Your task to perform on an android device: set the stopwatch Image 0: 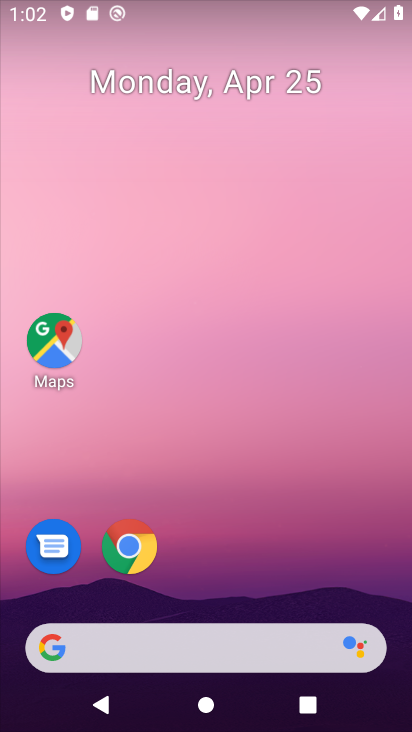
Step 0: drag from (205, 612) to (385, 24)
Your task to perform on an android device: set the stopwatch Image 1: 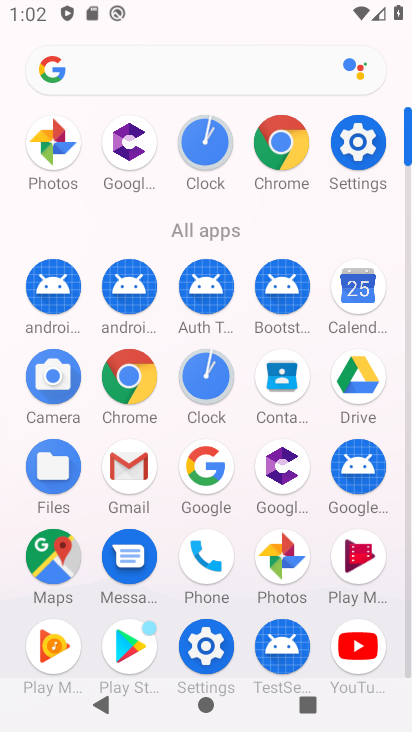
Step 1: click (214, 375)
Your task to perform on an android device: set the stopwatch Image 2: 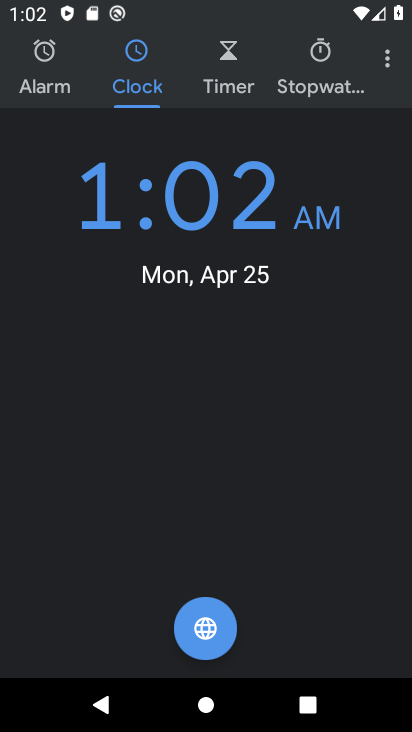
Step 2: click (336, 73)
Your task to perform on an android device: set the stopwatch Image 3: 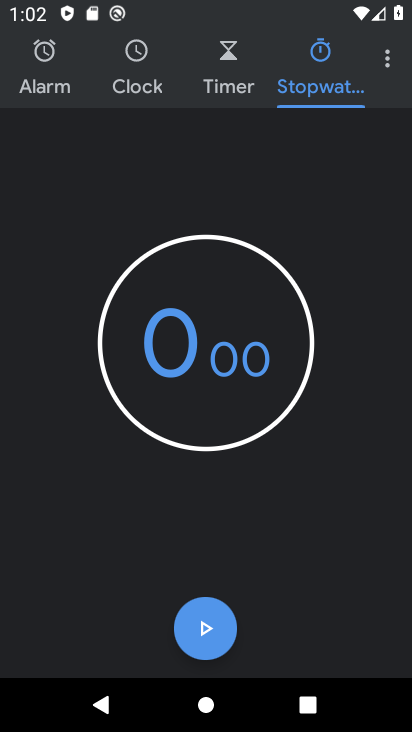
Step 3: task complete